Your task to perform on an android device: Go to Android settings Image 0: 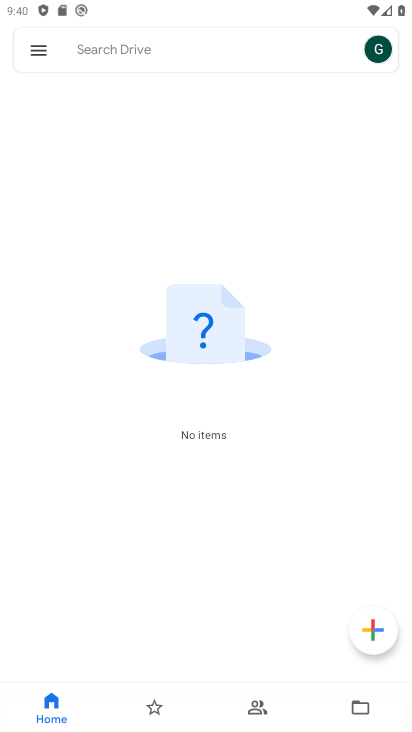
Step 0: press home button
Your task to perform on an android device: Go to Android settings Image 1: 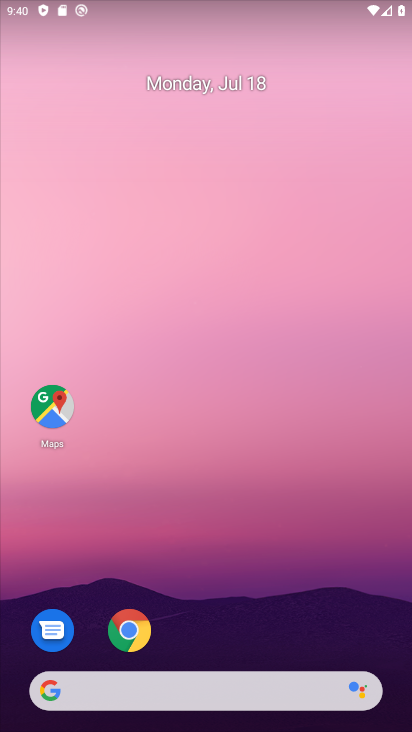
Step 1: drag from (176, 607) to (195, 382)
Your task to perform on an android device: Go to Android settings Image 2: 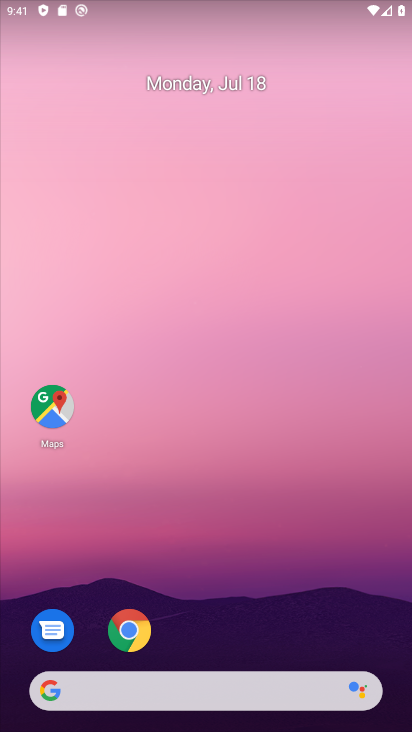
Step 2: drag from (251, 602) to (251, 70)
Your task to perform on an android device: Go to Android settings Image 3: 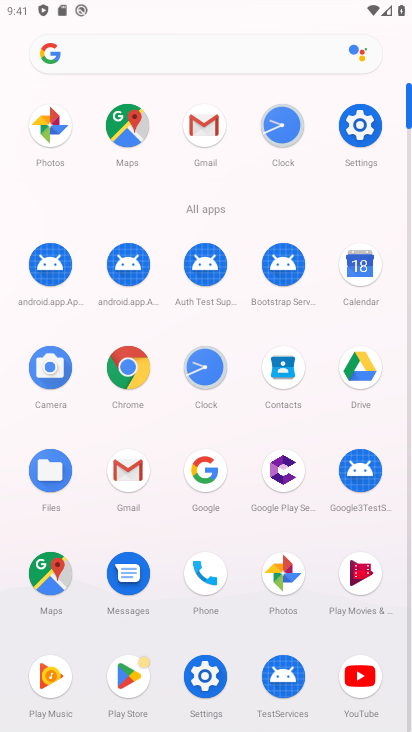
Step 3: click (366, 142)
Your task to perform on an android device: Go to Android settings Image 4: 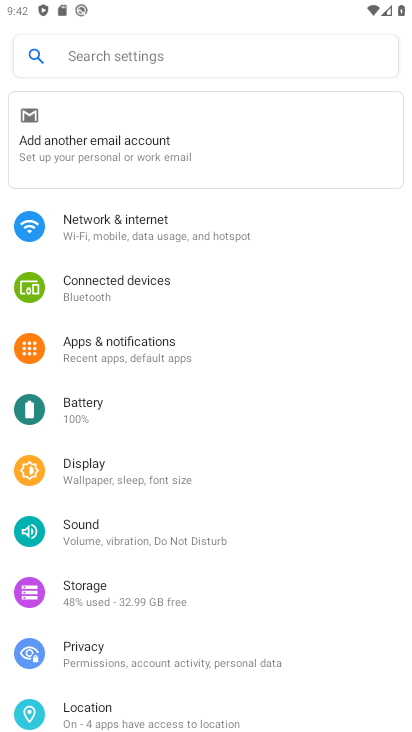
Step 4: drag from (211, 548) to (211, 8)
Your task to perform on an android device: Go to Android settings Image 5: 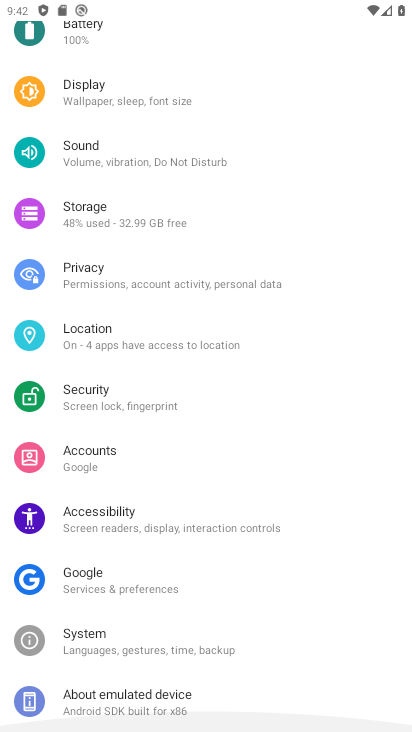
Step 5: drag from (224, 385) to (225, 29)
Your task to perform on an android device: Go to Android settings Image 6: 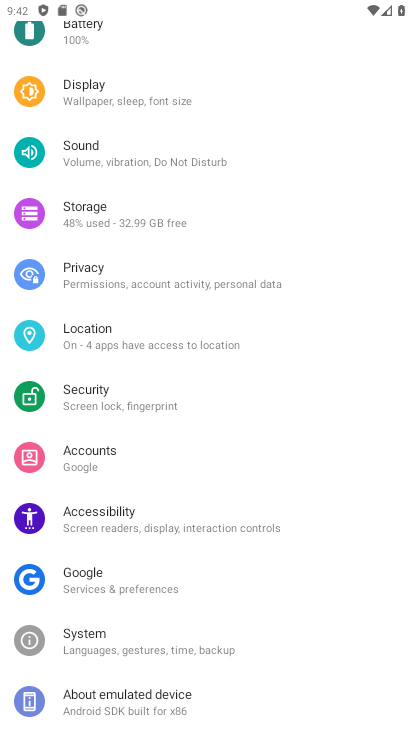
Step 6: click (180, 705)
Your task to perform on an android device: Go to Android settings Image 7: 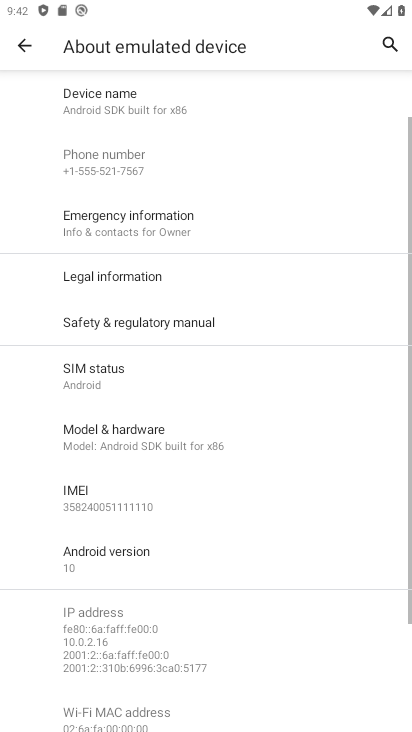
Step 7: click (153, 570)
Your task to perform on an android device: Go to Android settings Image 8: 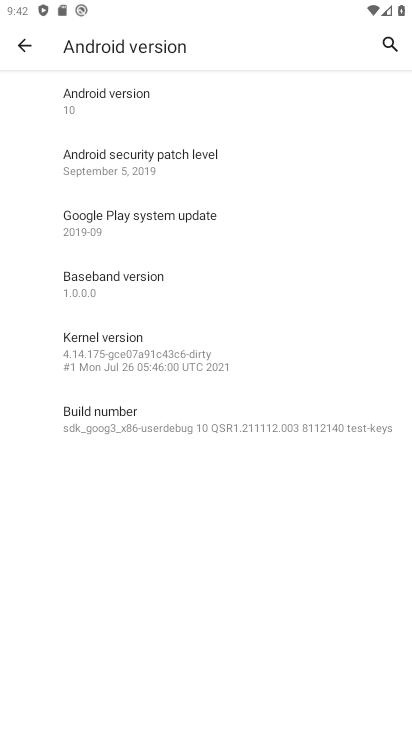
Step 8: task complete